Your task to perform on an android device: Open the calendar app, open the side menu, and click the "Day" option Image 0: 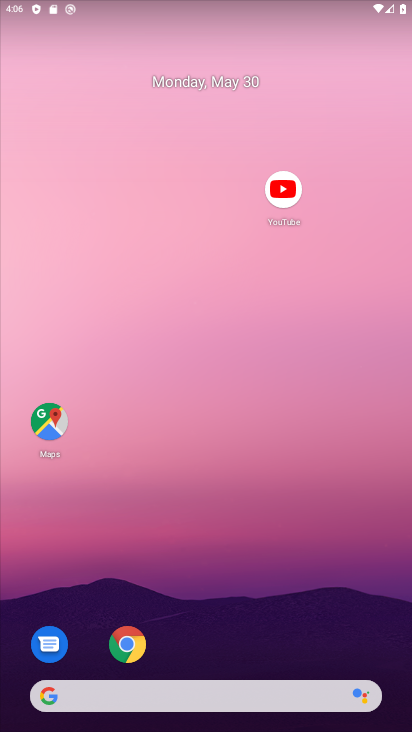
Step 0: click (166, 88)
Your task to perform on an android device: Open the calendar app, open the side menu, and click the "Day" option Image 1: 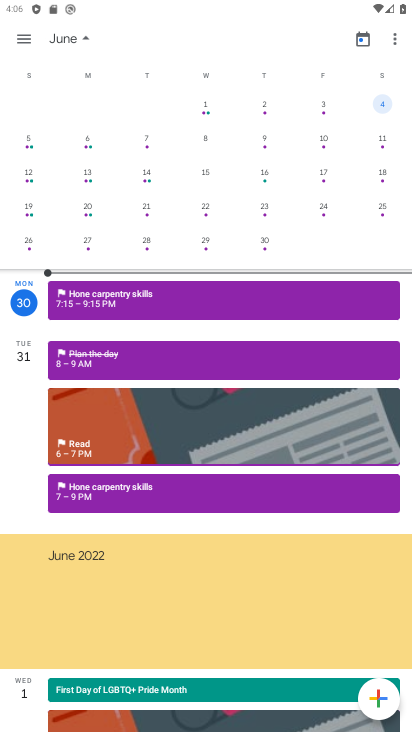
Step 1: click (27, 35)
Your task to perform on an android device: Open the calendar app, open the side menu, and click the "Day" option Image 2: 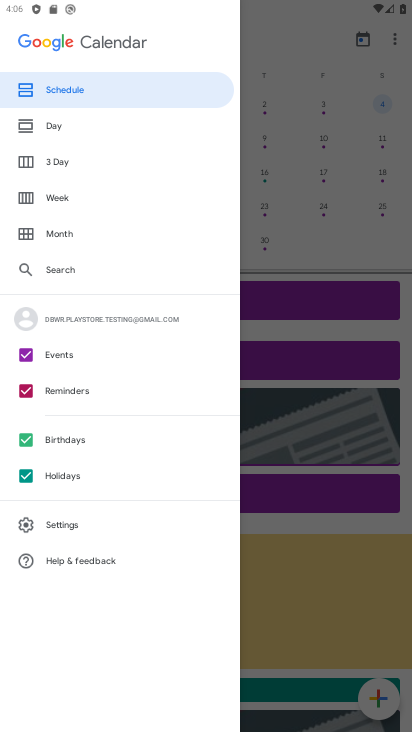
Step 2: click (43, 141)
Your task to perform on an android device: Open the calendar app, open the side menu, and click the "Day" option Image 3: 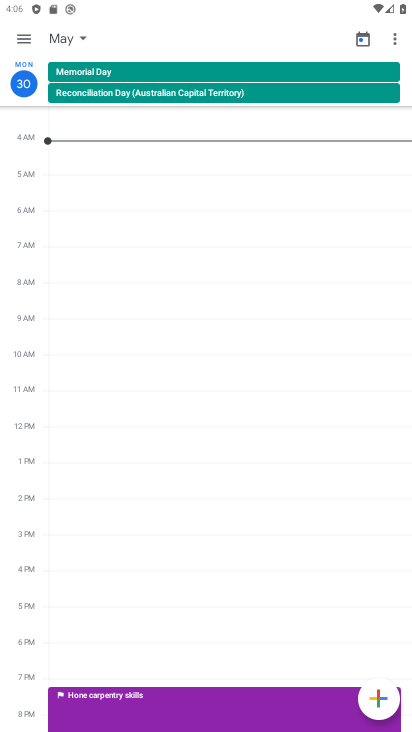
Step 3: task complete